Your task to perform on an android device: Open calendar and show me the fourth week of next month Image 0: 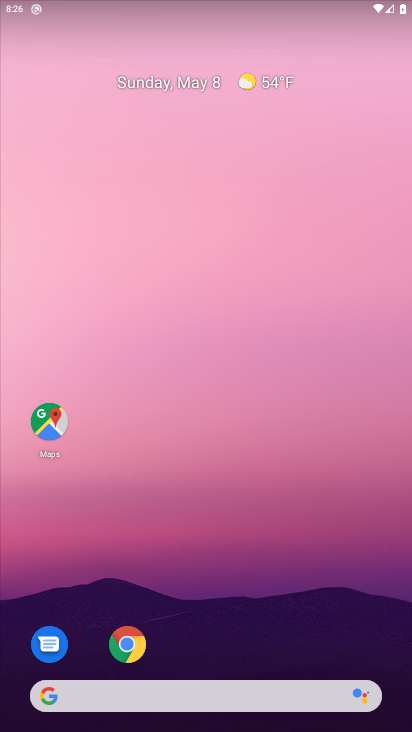
Step 0: drag from (226, 681) to (256, 307)
Your task to perform on an android device: Open calendar and show me the fourth week of next month Image 1: 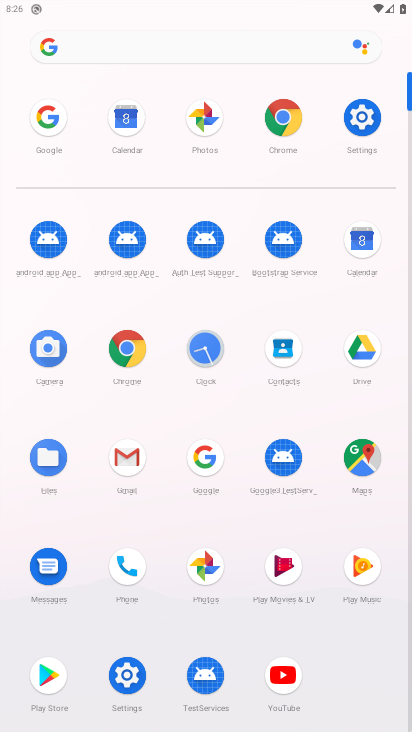
Step 1: click (351, 245)
Your task to perform on an android device: Open calendar and show me the fourth week of next month Image 2: 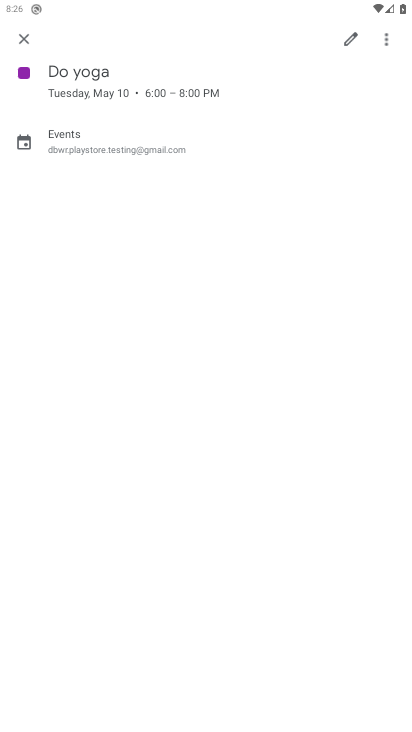
Step 2: click (24, 31)
Your task to perform on an android device: Open calendar and show me the fourth week of next month Image 3: 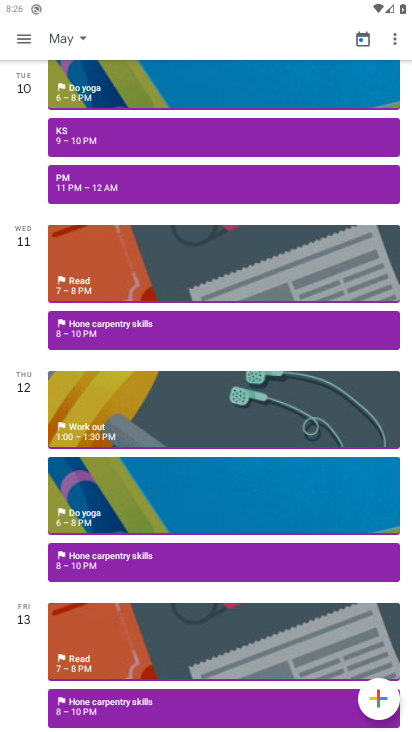
Step 3: click (77, 49)
Your task to perform on an android device: Open calendar and show me the fourth week of next month Image 4: 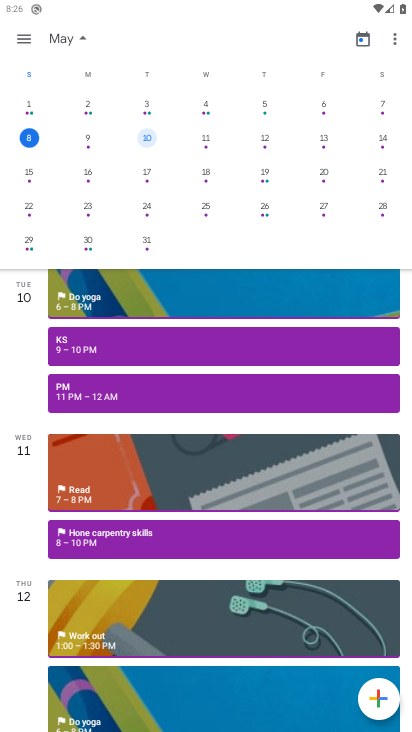
Step 4: drag from (328, 198) to (17, 172)
Your task to perform on an android device: Open calendar and show me the fourth week of next month Image 5: 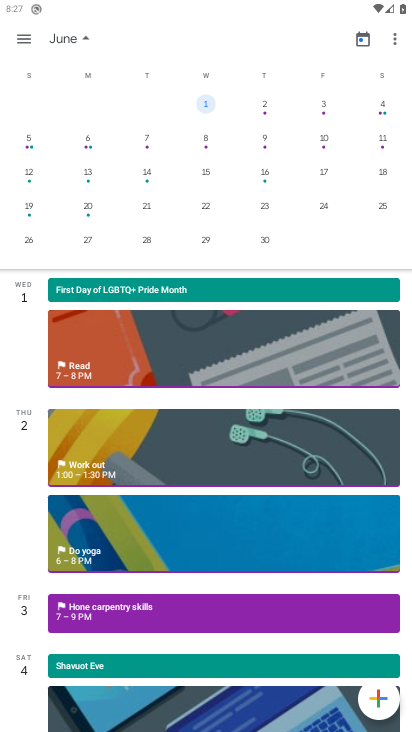
Step 5: click (33, 213)
Your task to perform on an android device: Open calendar and show me the fourth week of next month Image 6: 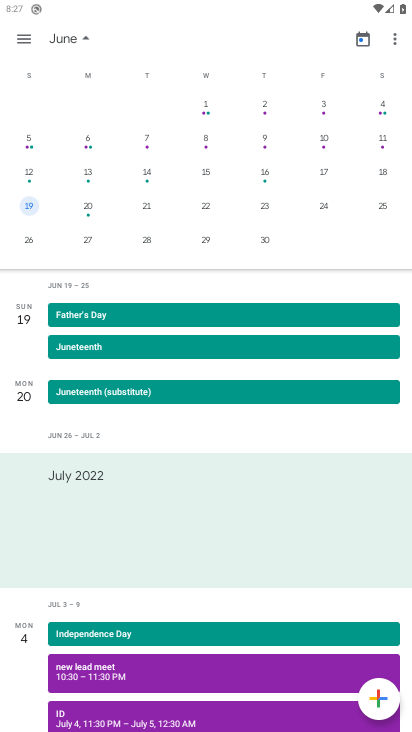
Step 6: task complete